Your task to perform on an android device: change notifications settings Image 0: 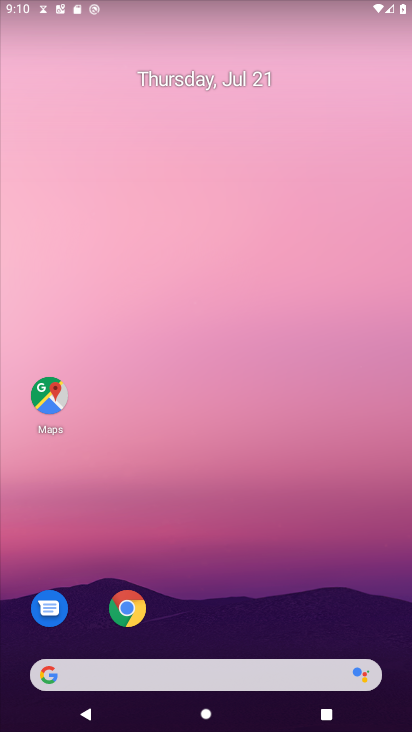
Step 0: drag from (210, 431) to (140, 0)
Your task to perform on an android device: change notifications settings Image 1: 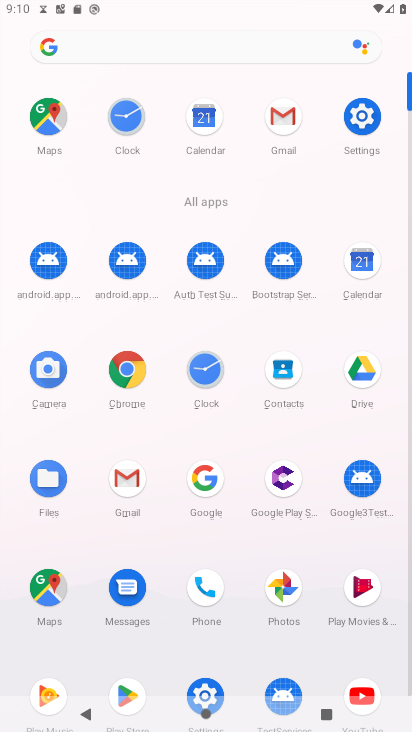
Step 1: click (367, 117)
Your task to perform on an android device: change notifications settings Image 2: 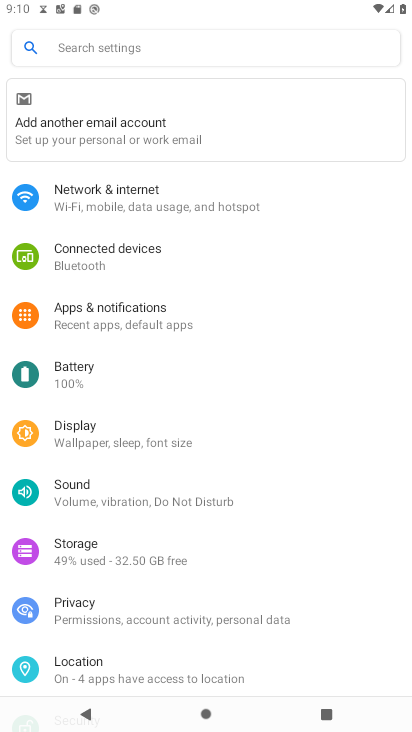
Step 2: click (109, 326)
Your task to perform on an android device: change notifications settings Image 3: 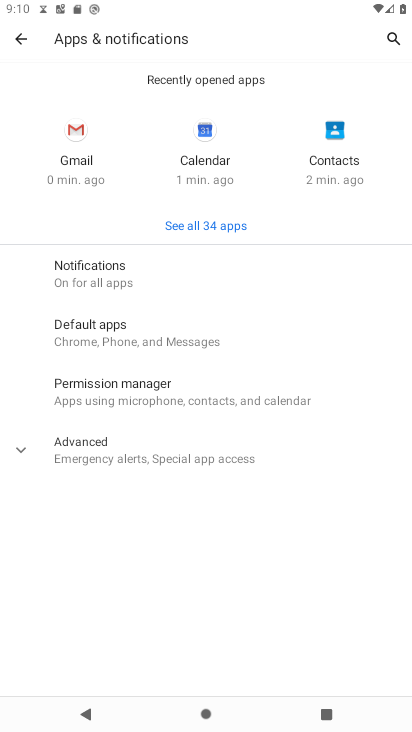
Step 3: click (95, 279)
Your task to perform on an android device: change notifications settings Image 4: 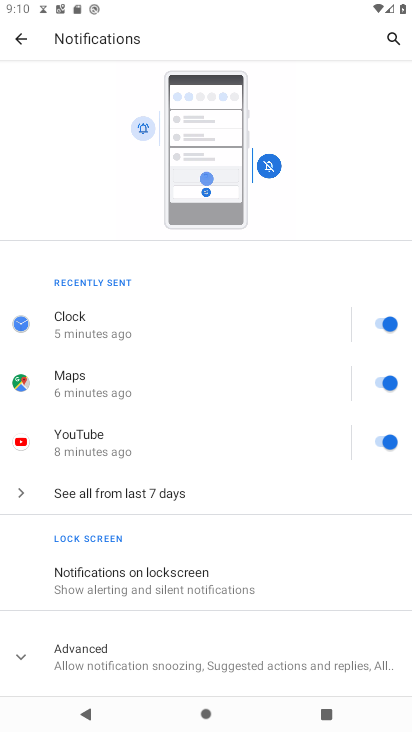
Step 4: click (200, 656)
Your task to perform on an android device: change notifications settings Image 5: 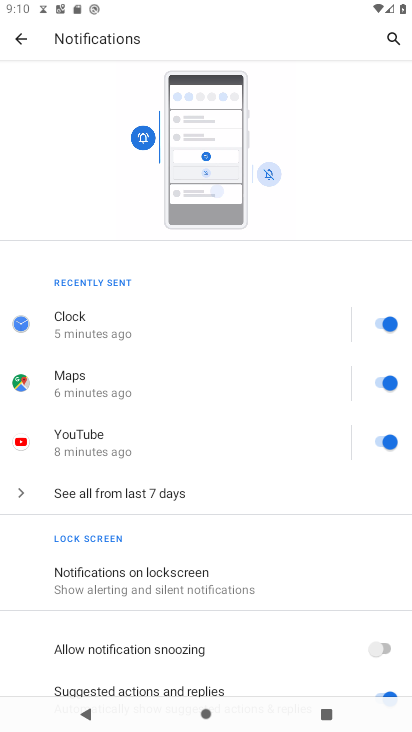
Step 5: click (193, 583)
Your task to perform on an android device: change notifications settings Image 6: 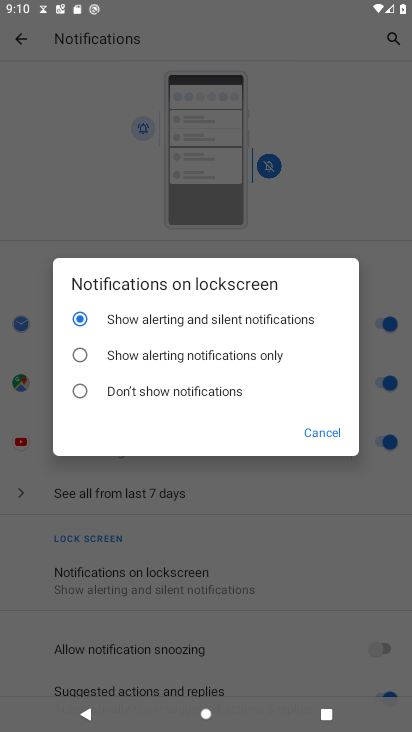
Step 6: click (78, 395)
Your task to perform on an android device: change notifications settings Image 7: 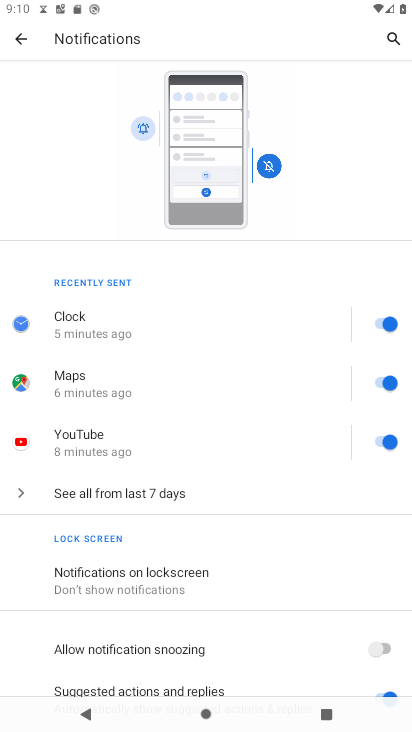
Step 7: task complete